Your task to perform on an android device: change the clock display to digital Image 0: 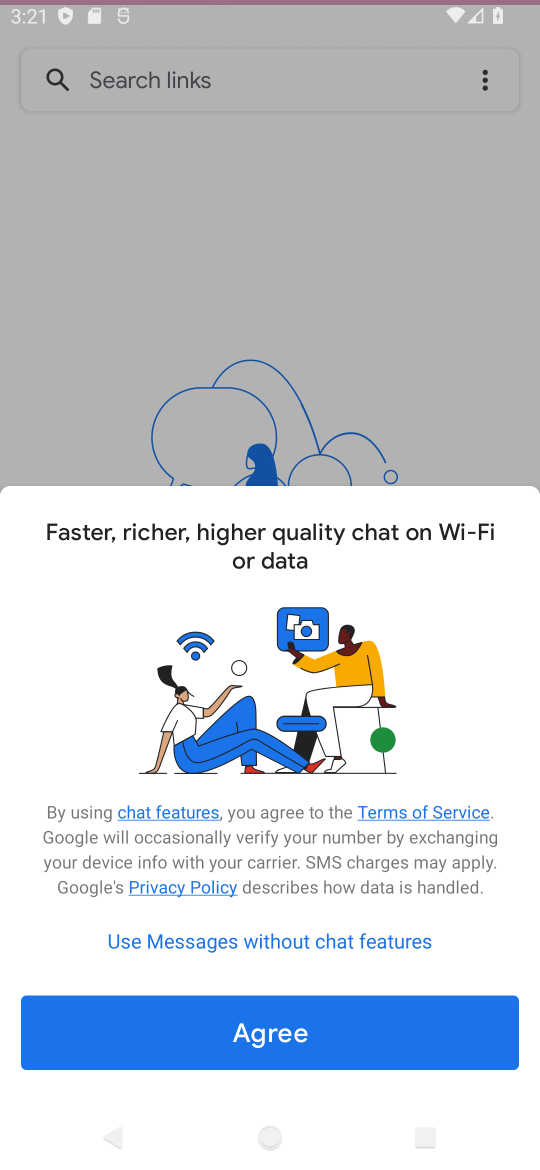
Step 0: press home button
Your task to perform on an android device: change the clock display to digital Image 1: 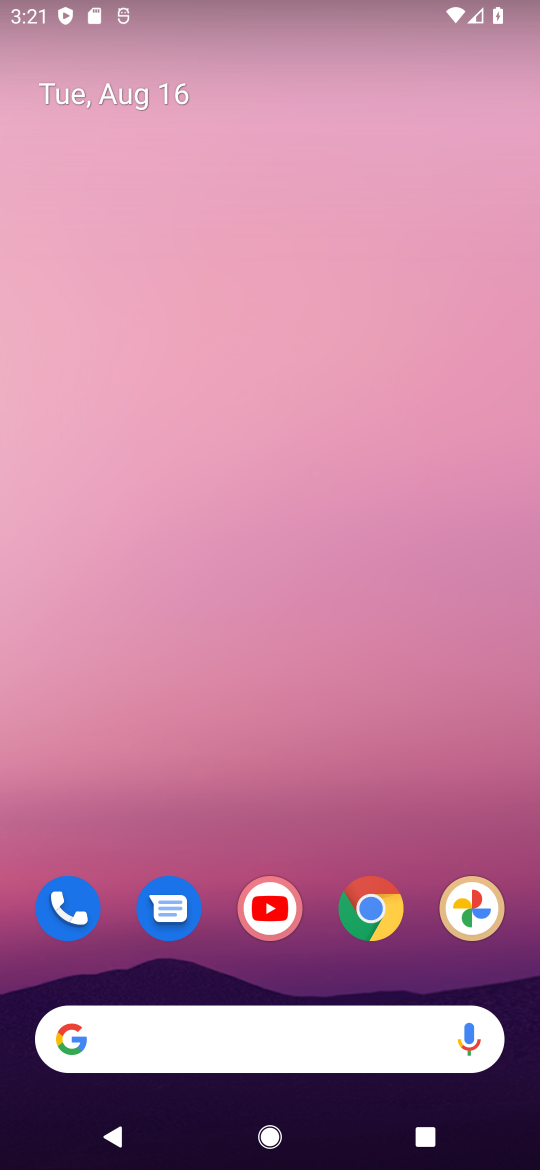
Step 1: drag from (327, 975) to (409, 128)
Your task to perform on an android device: change the clock display to digital Image 2: 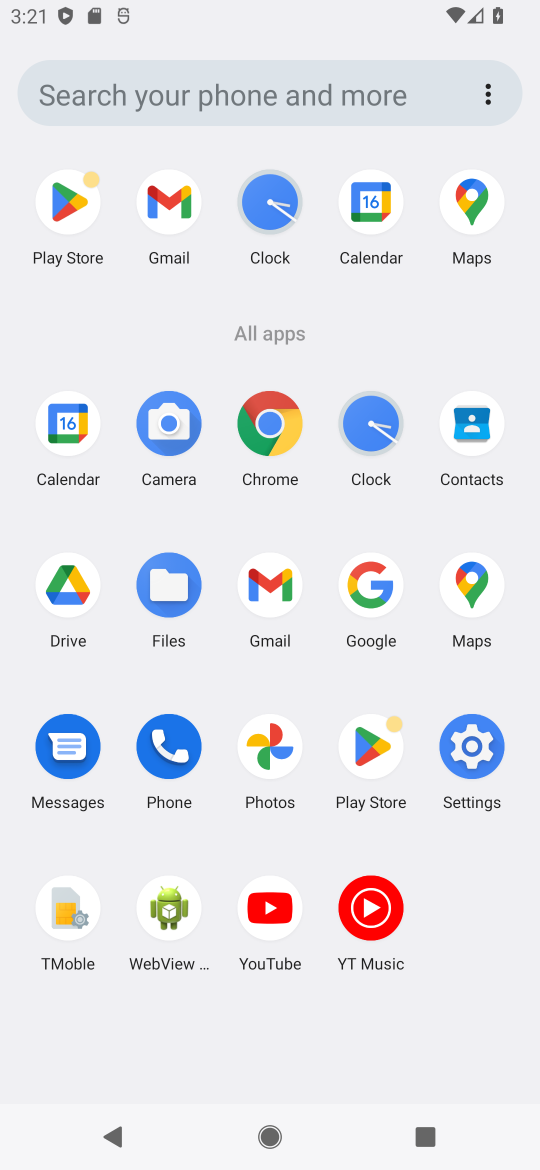
Step 2: click (367, 410)
Your task to perform on an android device: change the clock display to digital Image 3: 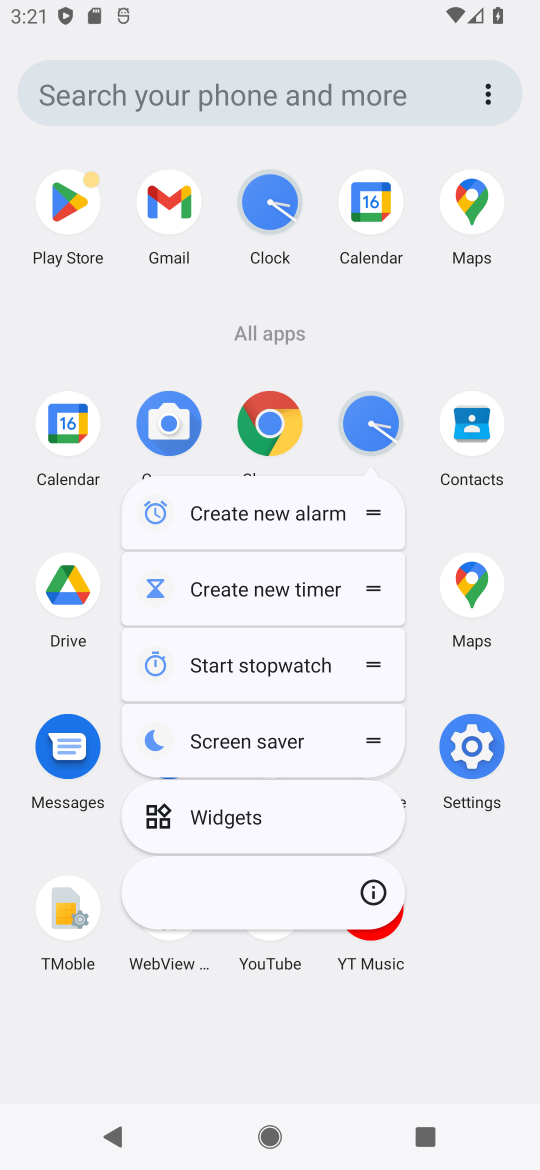
Step 3: click (372, 417)
Your task to perform on an android device: change the clock display to digital Image 4: 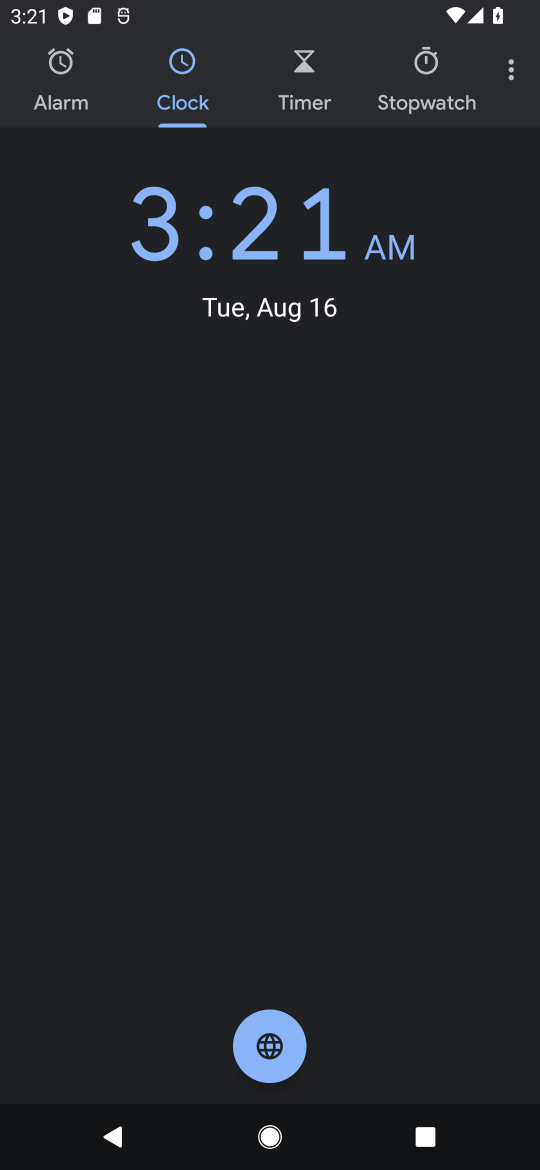
Step 4: click (511, 69)
Your task to perform on an android device: change the clock display to digital Image 5: 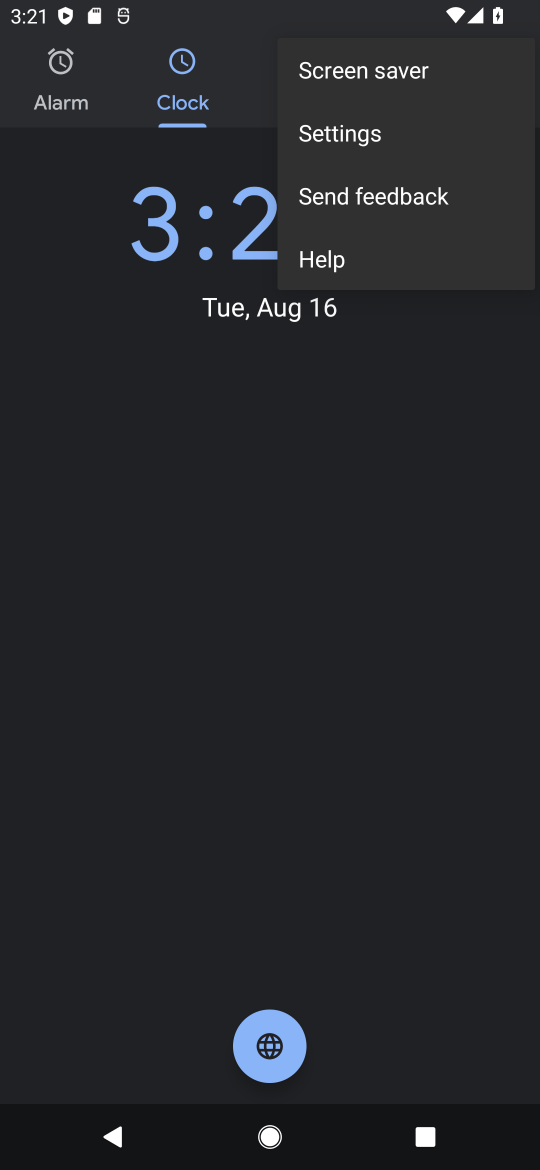
Step 5: click (391, 140)
Your task to perform on an android device: change the clock display to digital Image 6: 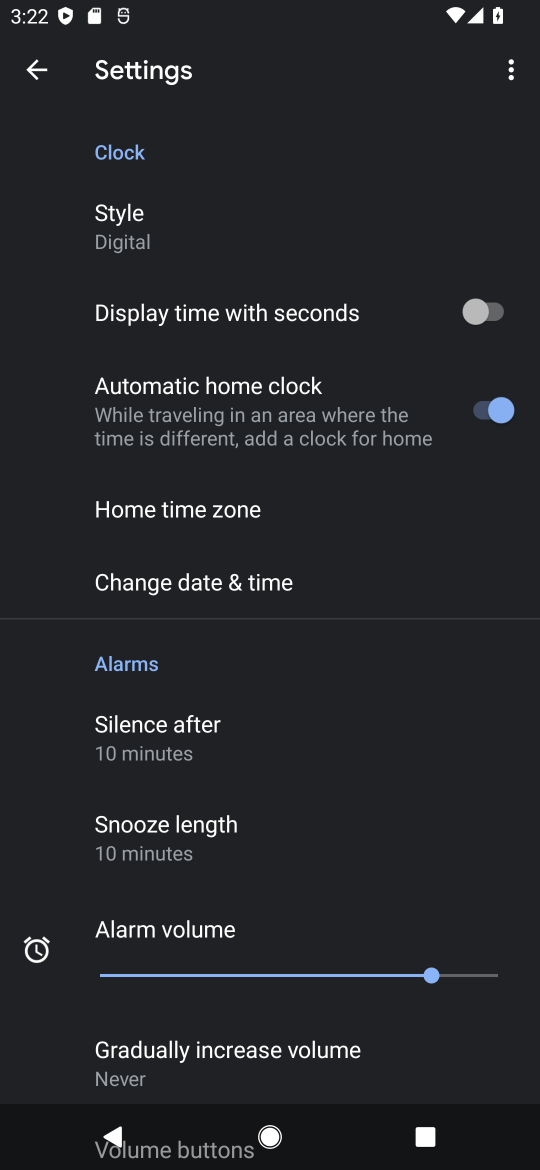
Step 6: task complete